Your task to perform on an android device: Go to accessibility settings Image 0: 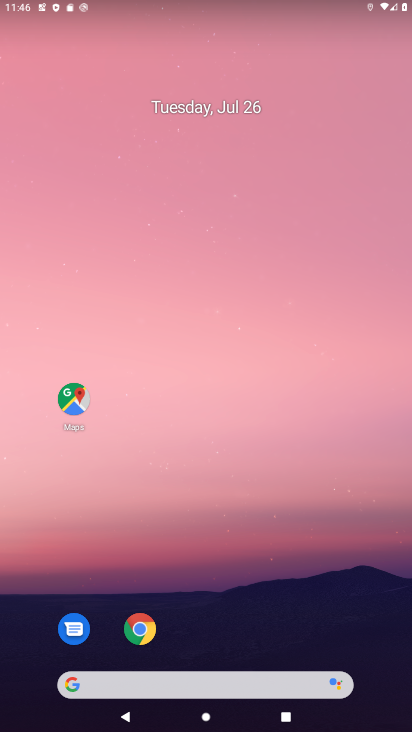
Step 0: drag from (219, 722) to (195, 145)
Your task to perform on an android device: Go to accessibility settings Image 1: 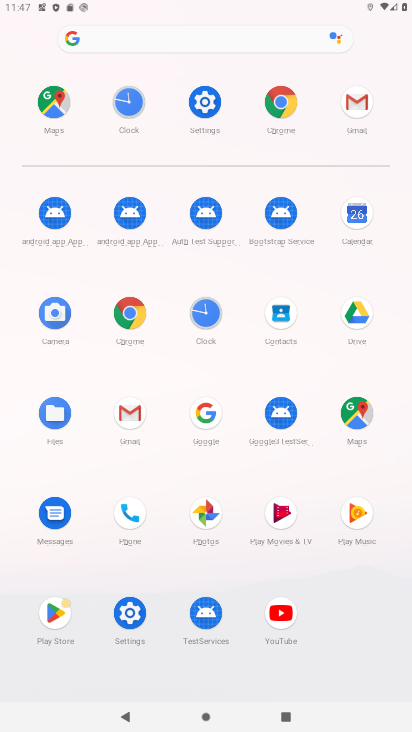
Step 1: click (202, 104)
Your task to perform on an android device: Go to accessibility settings Image 2: 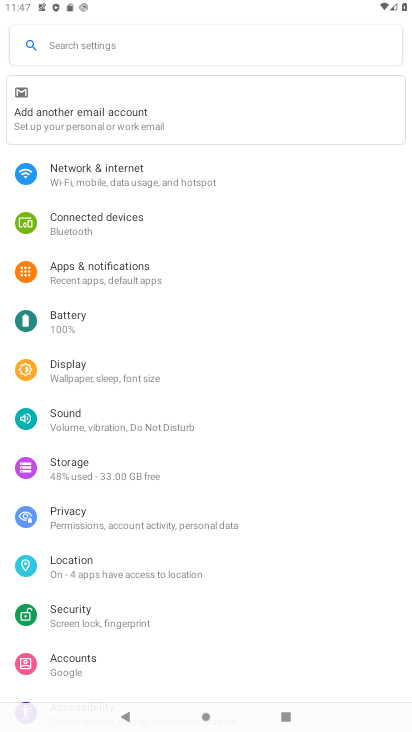
Step 2: drag from (115, 661) to (106, 333)
Your task to perform on an android device: Go to accessibility settings Image 3: 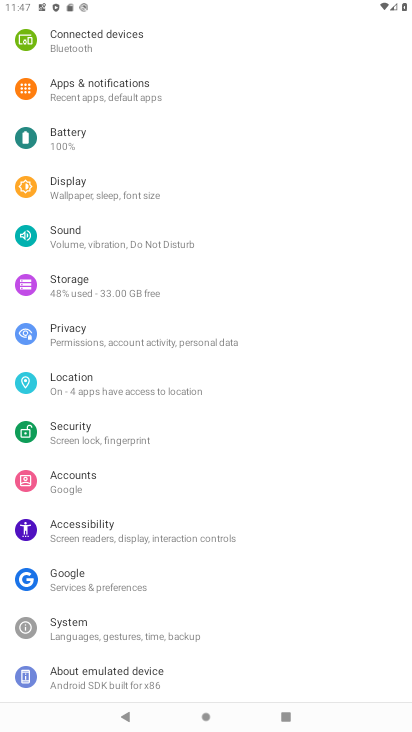
Step 3: click (84, 531)
Your task to perform on an android device: Go to accessibility settings Image 4: 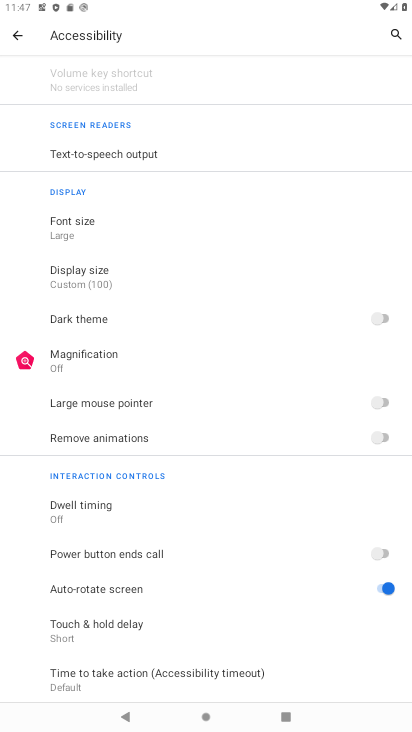
Step 4: task complete